Your task to perform on an android device: turn on improve location accuracy Image 0: 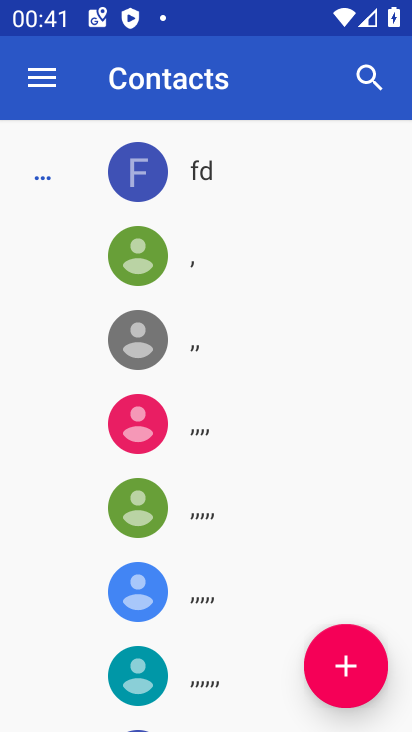
Step 0: press home button
Your task to perform on an android device: turn on improve location accuracy Image 1: 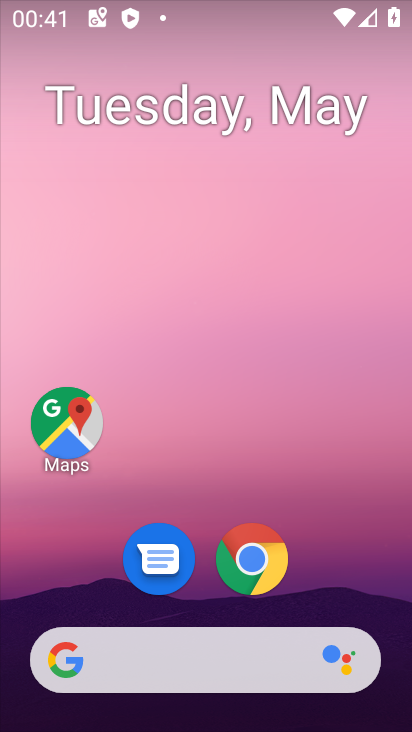
Step 1: drag from (325, 563) to (270, 254)
Your task to perform on an android device: turn on improve location accuracy Image 2: 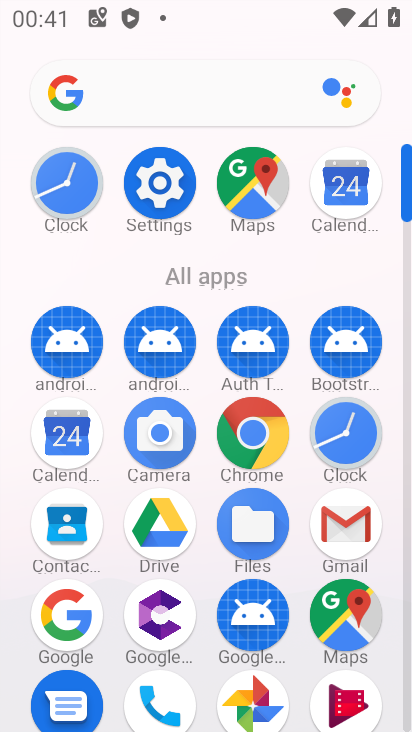
Step 2: click (145, 196)
Your task to perform on an android device: turn on improve location accuracy Image 3: 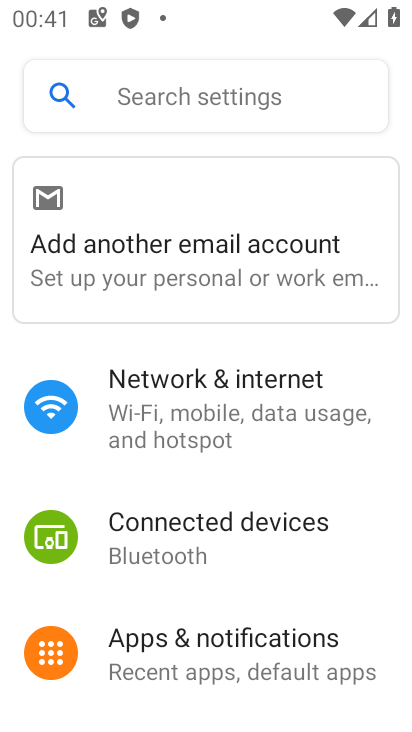
Step 3: drag from (221, 499) to (196, 300)
Your task to perform on an android device: turn on improve location accuracy Image 4: 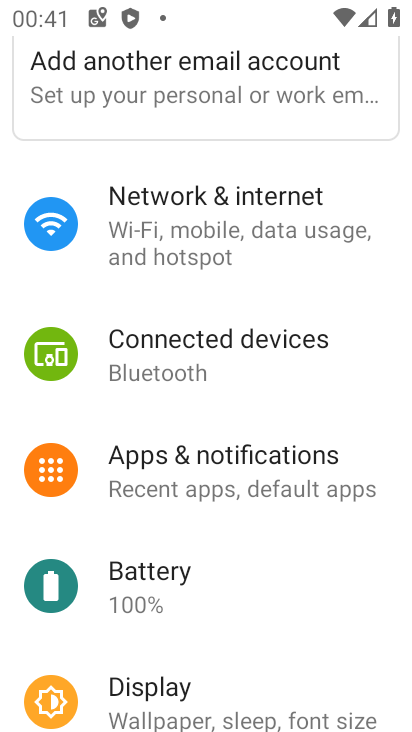
Step 4: drag from (216, 567) to (213, 292)
Your task to perform on an android device: turn on improve location accuracy Image 5: 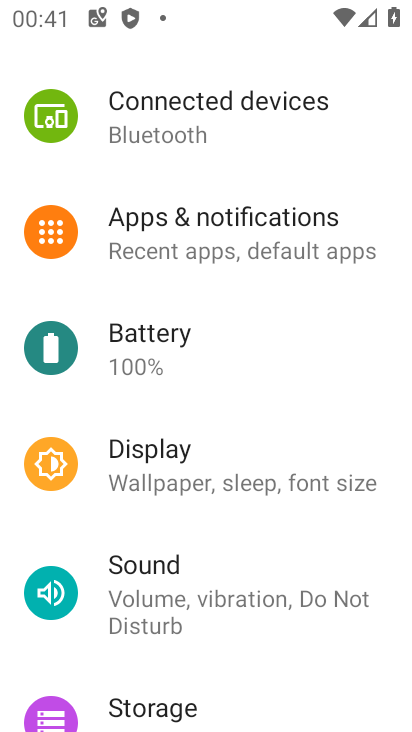
Step 5: drag from (268, 604) to (253, 339)
Your task to perform on an android device: turn on improve location accuracy Image 6: 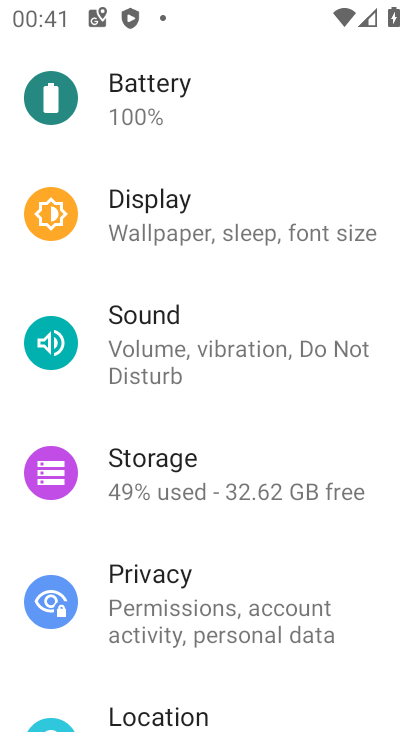
Step 6: drag from (219, 594) to (209, 303)
Your task to perform on an android device: turn on improve location accuracy Image 7: 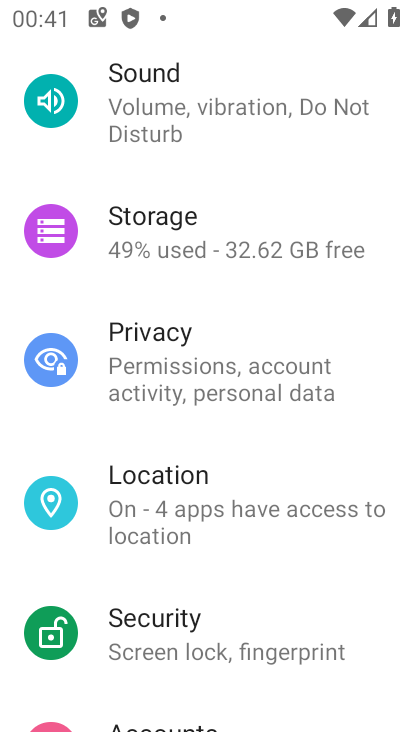
Step 7: click (194, 480)
Your task to perform on an android device: turn on improve location accuracy Image 8: 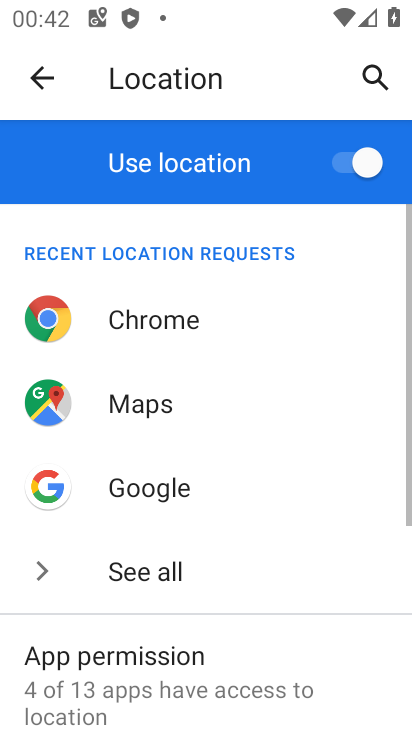
Step 8: drag from (219, 624) to (208, 122)
Your task to perform on an android device: turn on improve location accuracy Image 9: 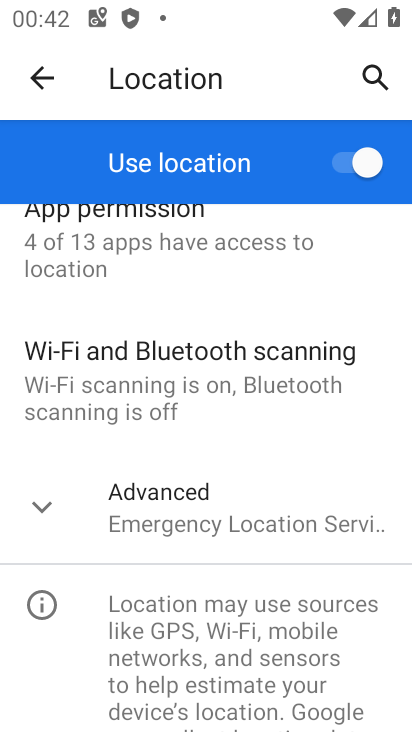
Step 9: click (186, 509)
Your task to perform on an android device: turn on improve location accuracy Image 10: 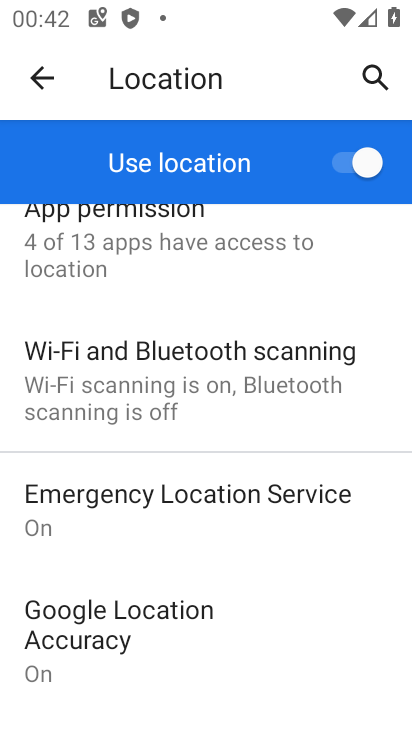
Step 10: drag from (195, 592) to (184, 262)
Your task to perform on an android device: turn on improve location accuracy Image 11: 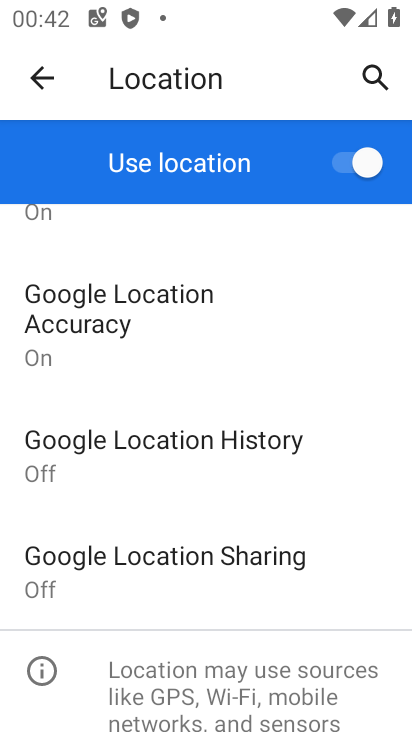
Step 11: click (167, 282)
Your task to perform on an android device: turn on improve location accuracy Image 12: 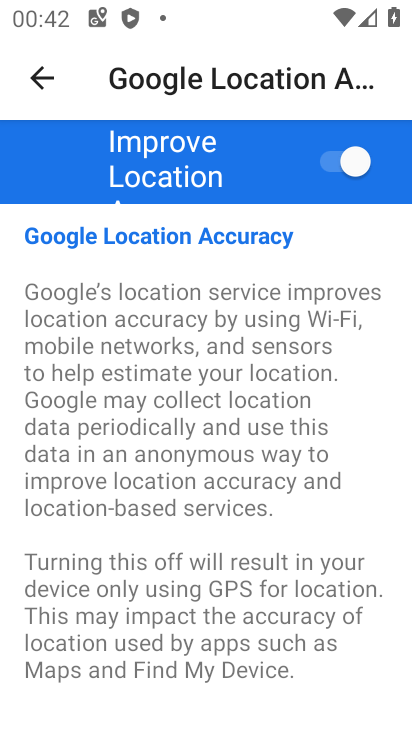
Step 12: task complete